Your task to perform on an android device: toggle wifi Image 0: 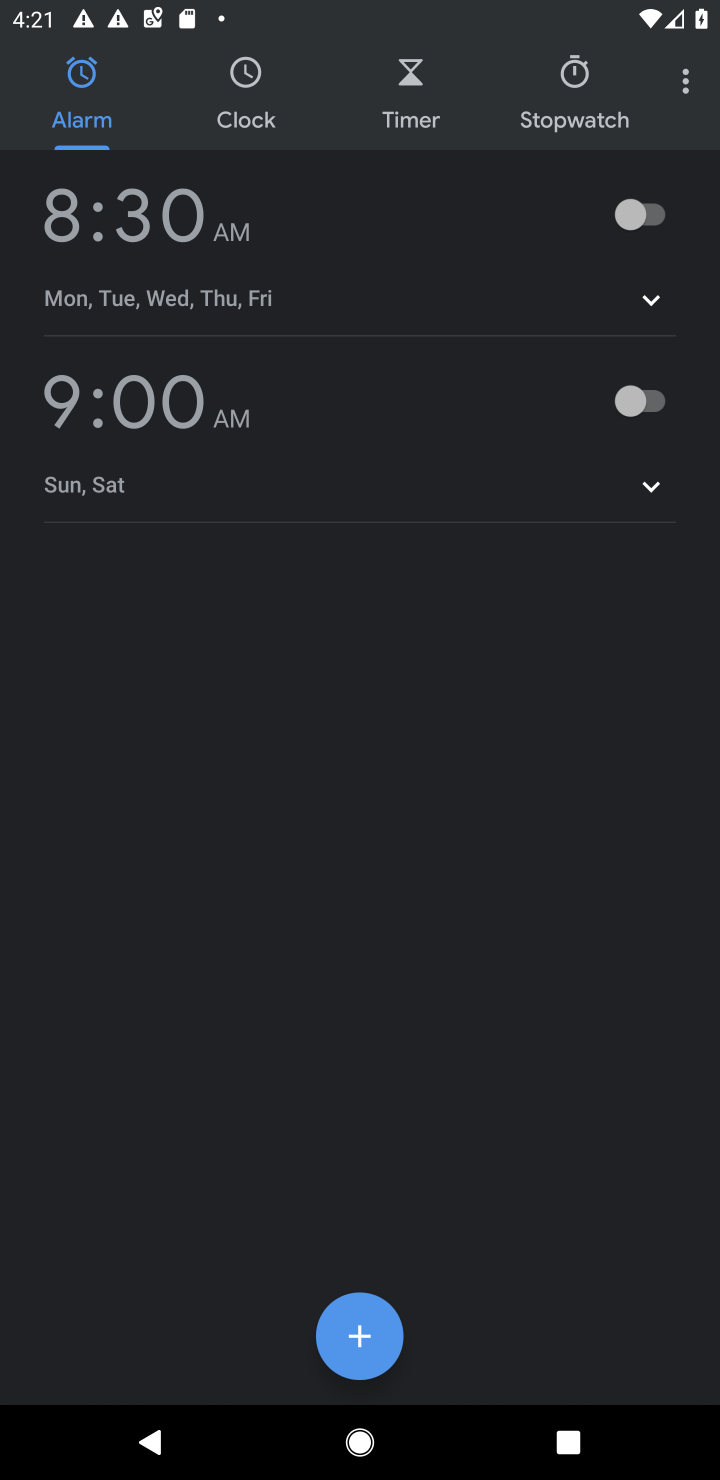
Step 0: press home button
Your task to perform on an android device: toggle wifi Image 1: 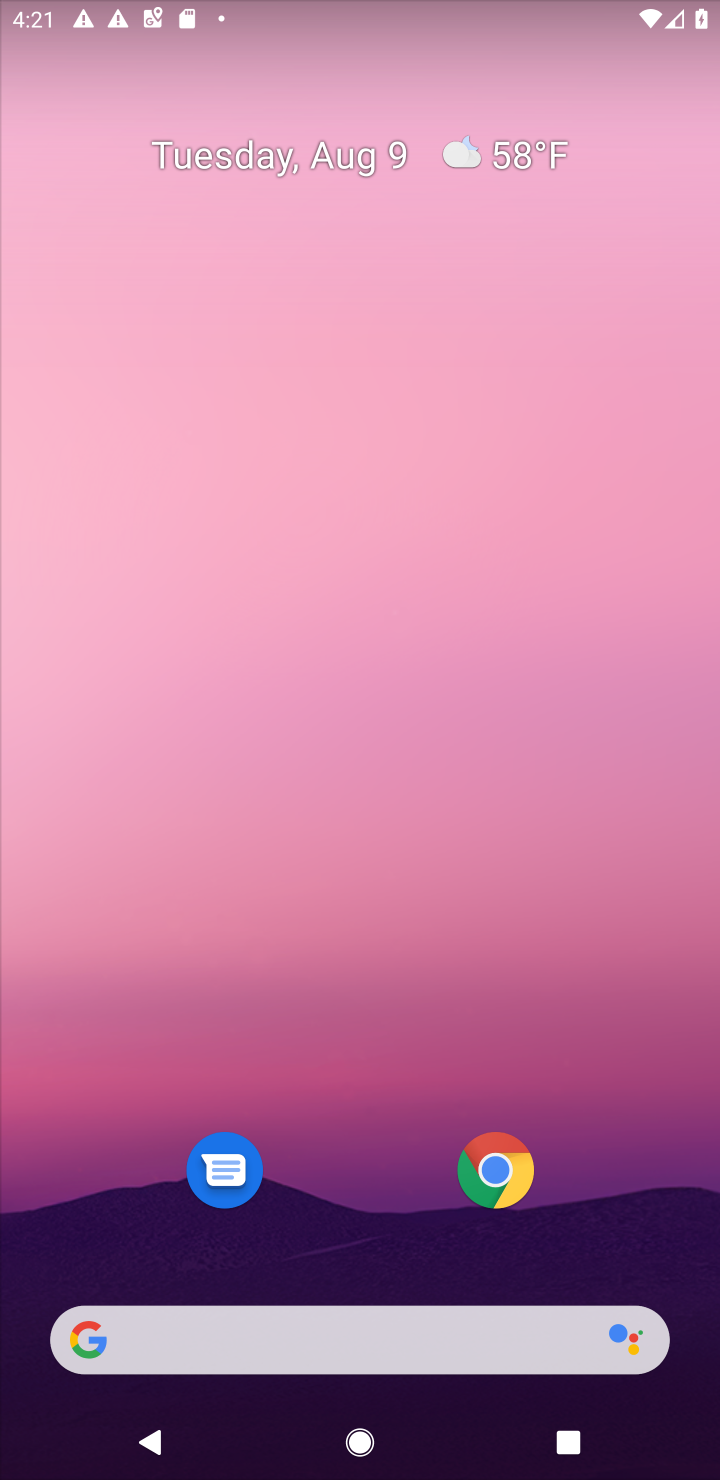
Step 1: drag from (347, 1240) to (240, 98)
Your task to perform on an android device: toggle wifi Image 2: 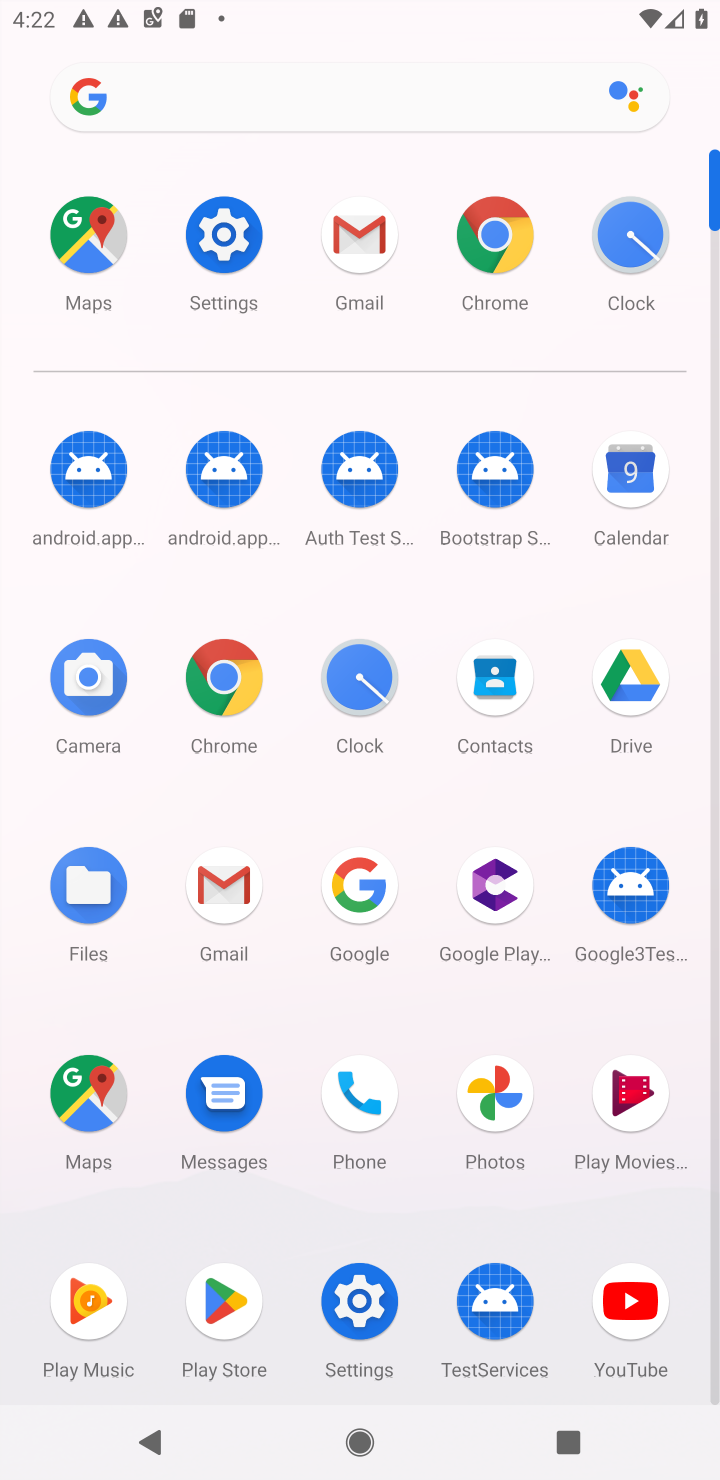
Step 2: click (343, 1302)
Your task to perform on an android device: toggle wifi Image 3: 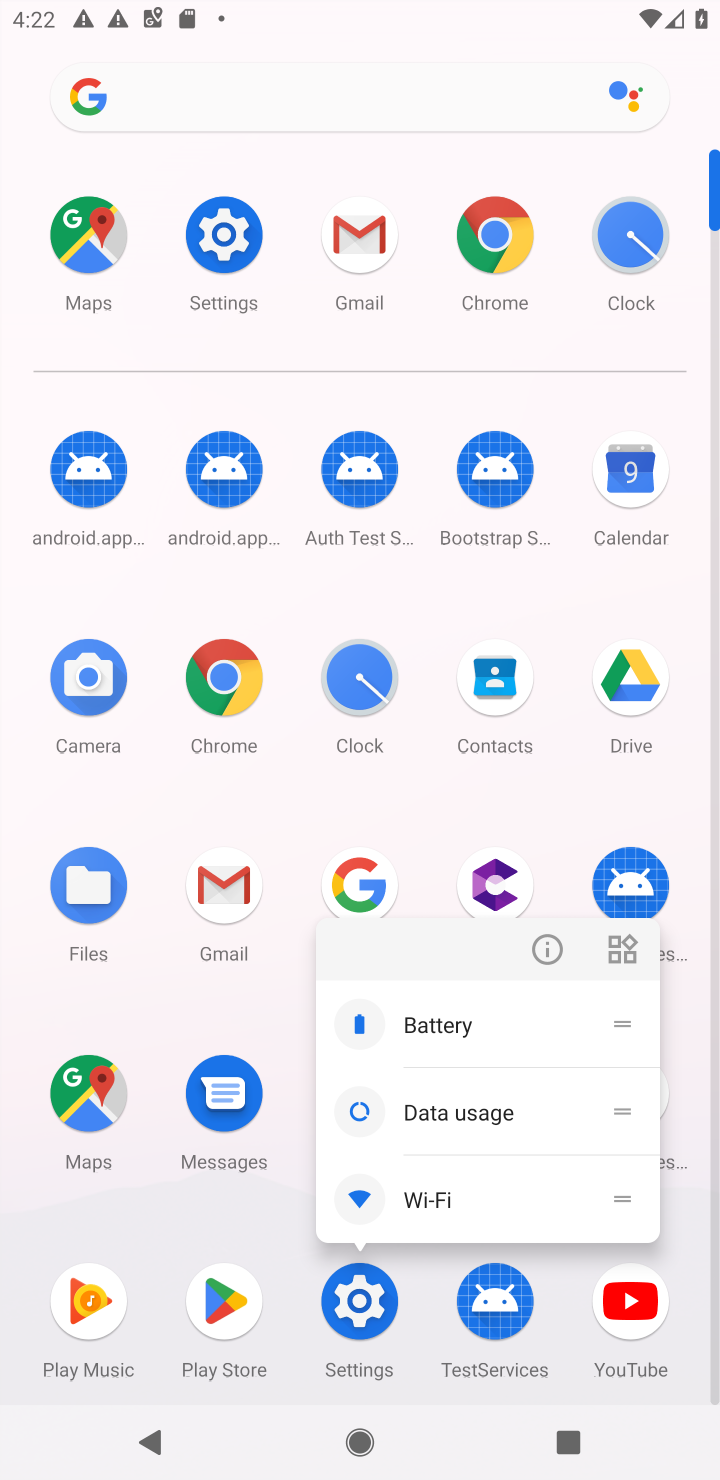
Step 3: click (346, 1302)
Your task to perform on an android device: toggle wifi Image 4: 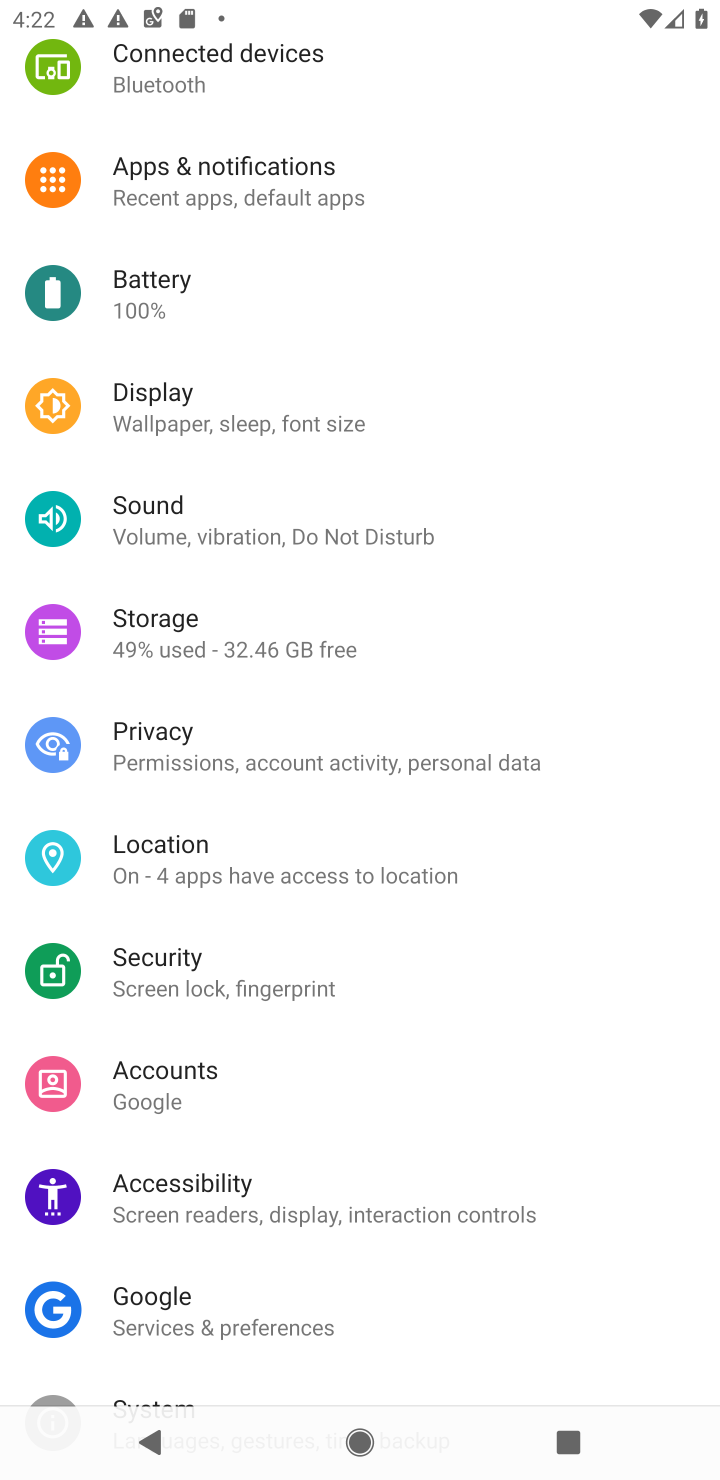
Step 4: drag from (200, 111) to (190, 1170)
Your task to perform on an android device: toggle wifi Image 5: 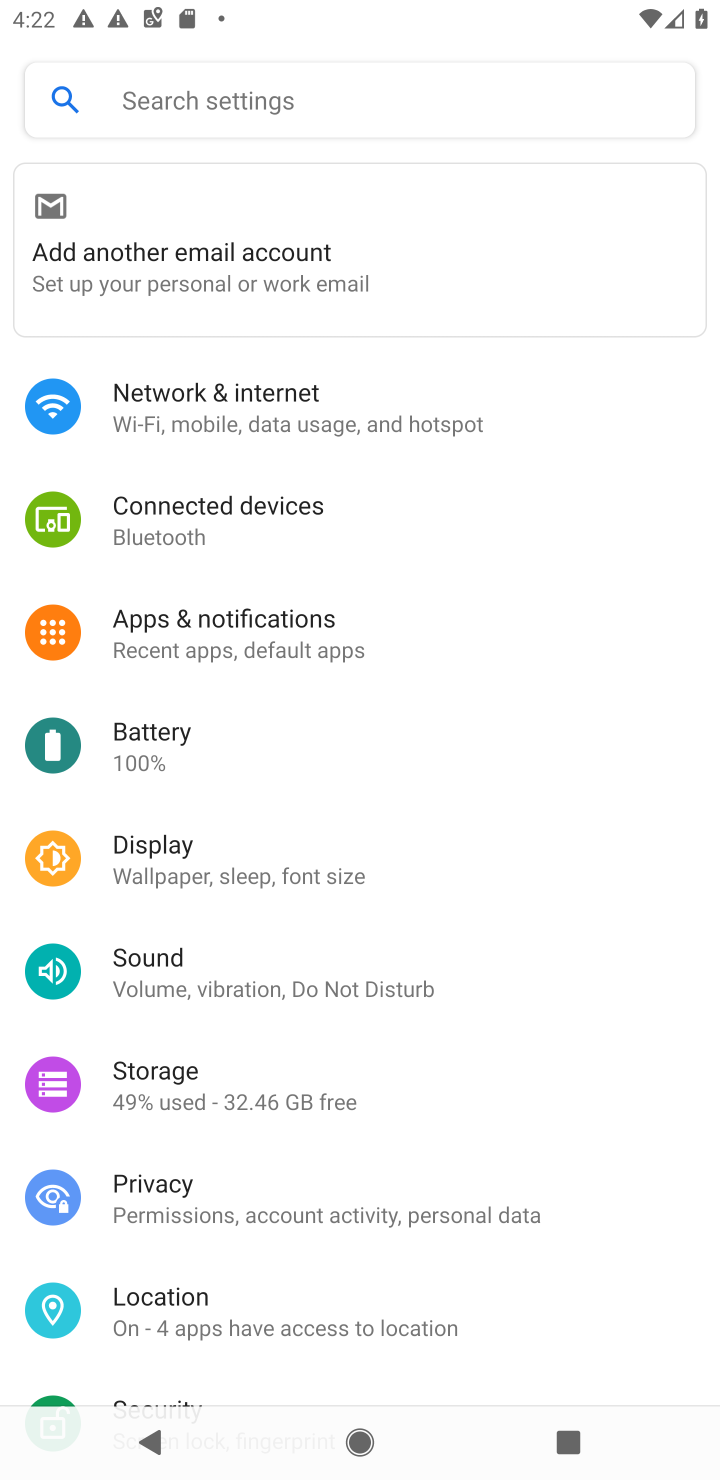
Step 5: click (218, 413)
Your task to perform on an android device: toggle wifi Image 6: 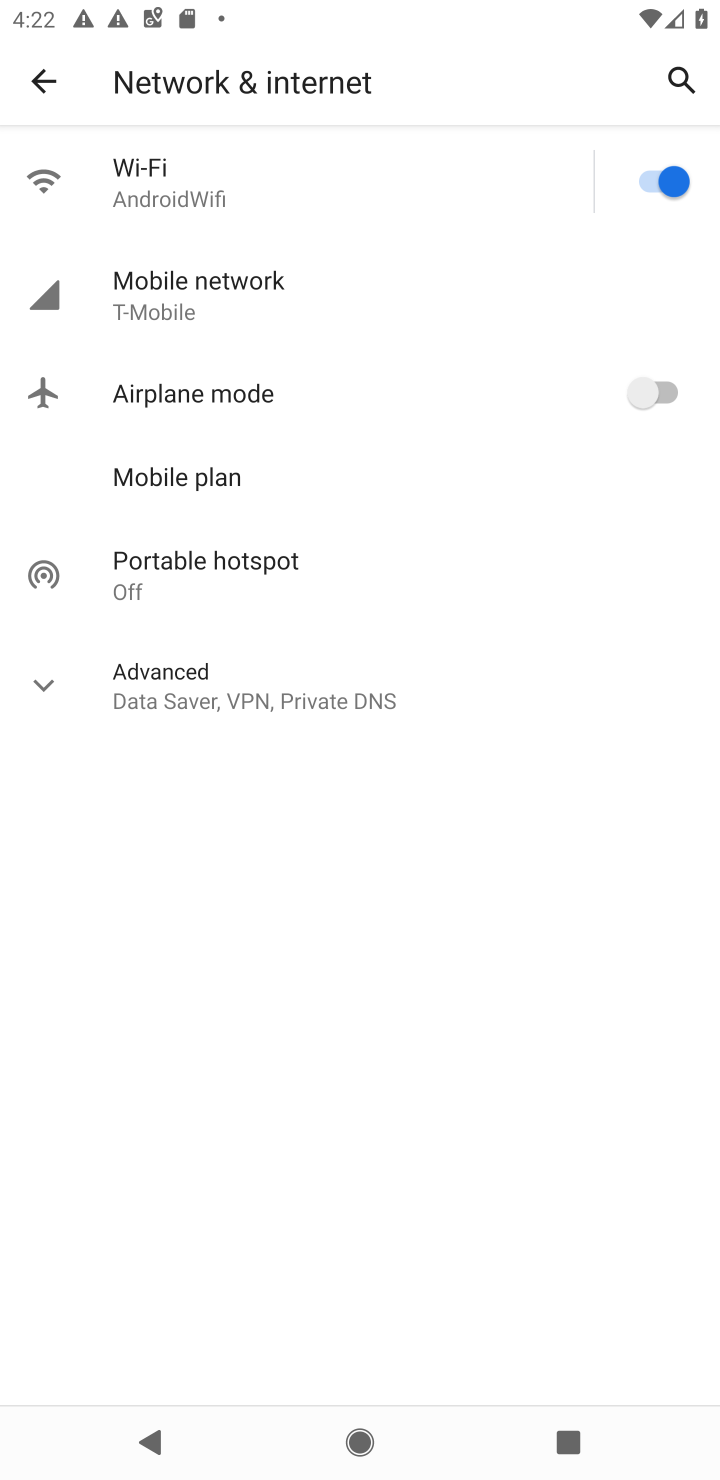
Step 6: click (667, 179)
Your task to perform on an android device: toggle wifi Image 7: 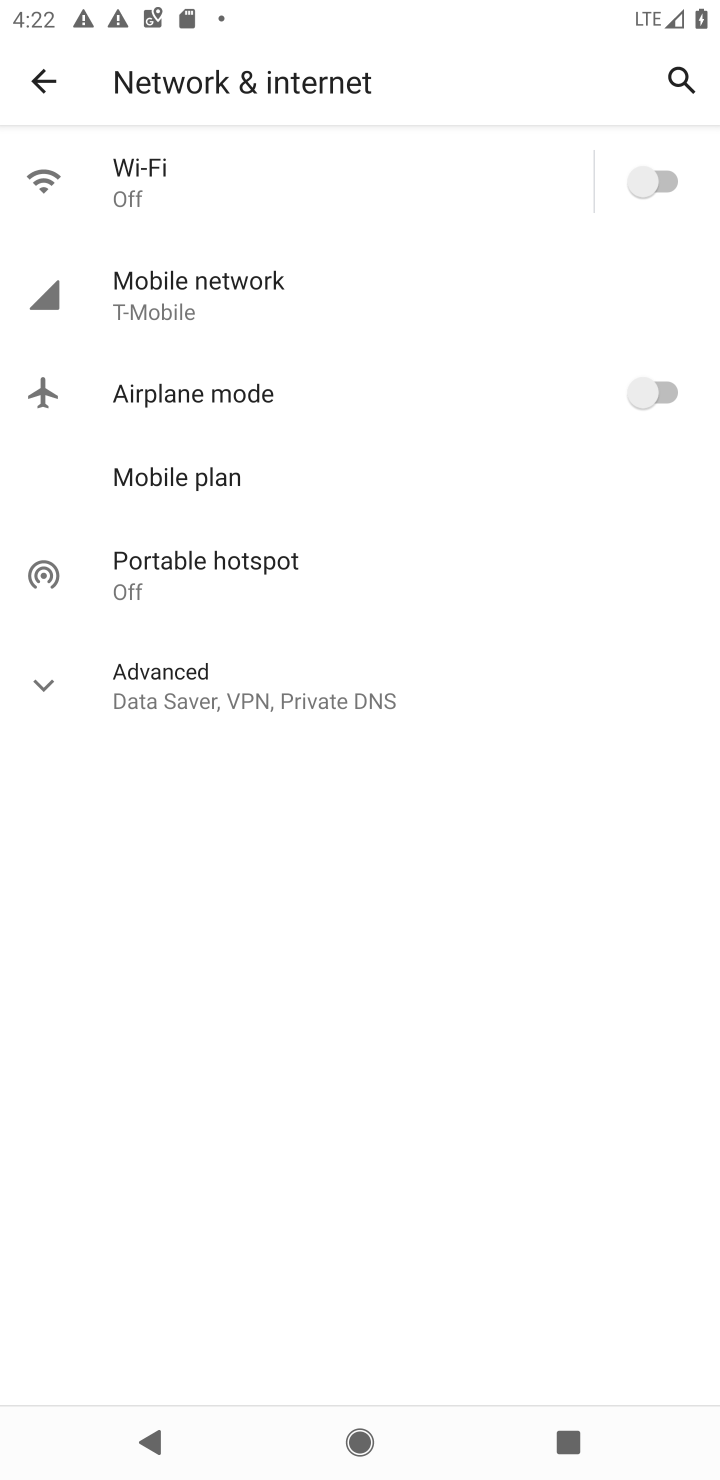
Step 7: task complete